Your task to perform on an android device: turn off airplane mode Image 0: 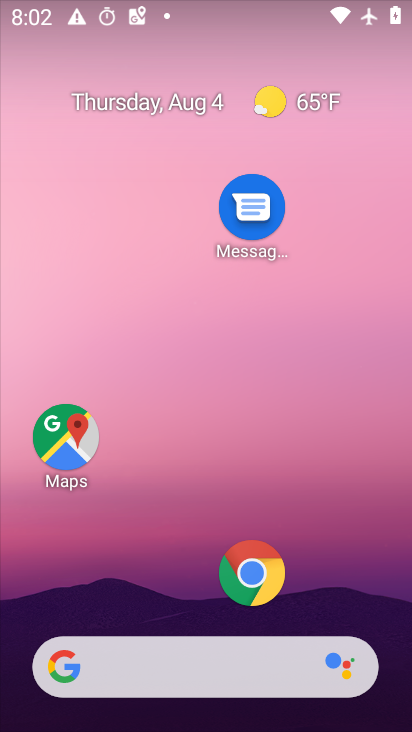
Step 0: press home button
Your task to perform on an android device: turn off airplane mode Image 1: 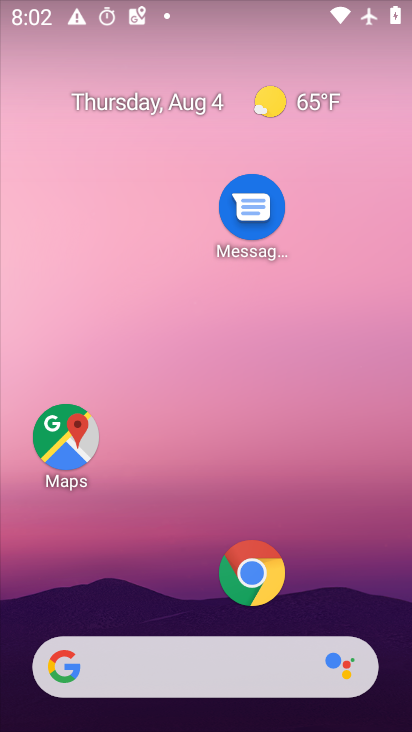
Step 1: drag from (250, 47) to (213, 541)
Your task to perform on an android device: turn off airplane mode Image 2: 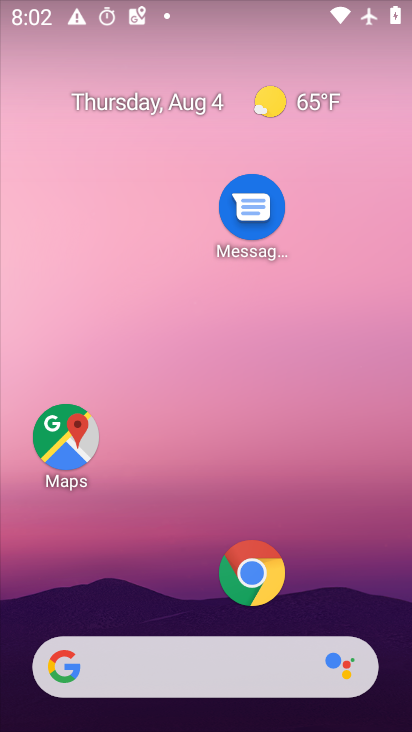
Step 2: drag from (212, 9) to (200, 550)
Your task to perform on an android device: turn off airplane mode Image 3: 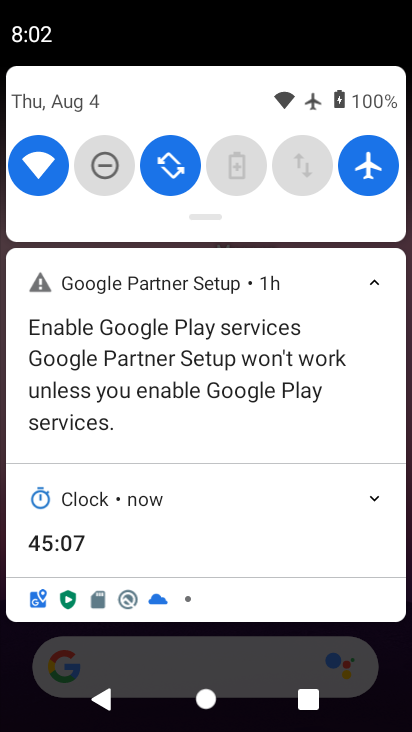
Step 3: click (364, 159)
Your task to perform on an android device: turn off airplane mode Image 4: 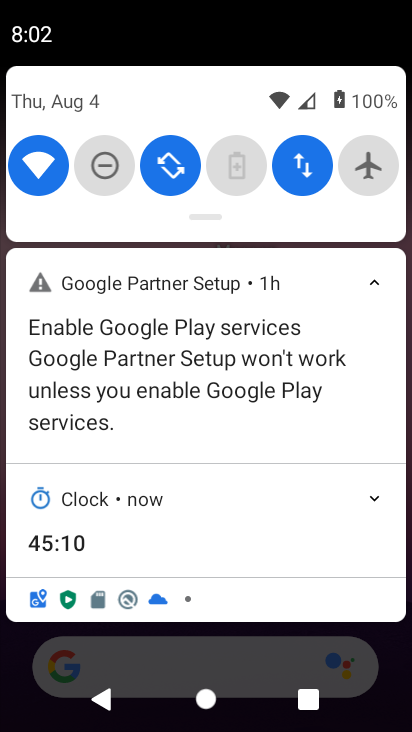
Step 4: task complete